Your task to perform on an android device: Search for hotels in Orlando Image 0: 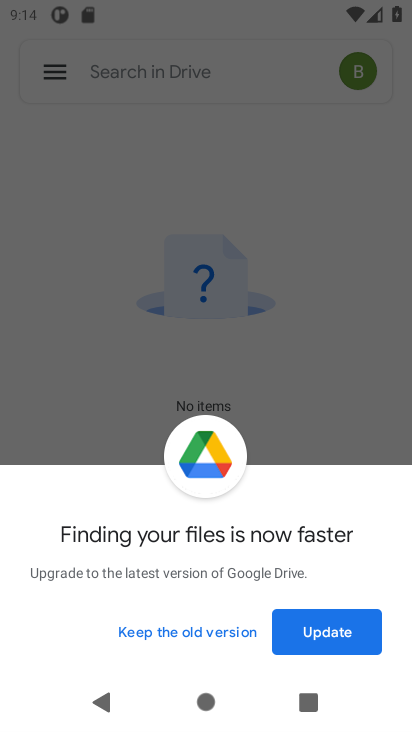
Step 0: press home button
Your task to perform on an android device: Search for hotels in Orlando Image 1: 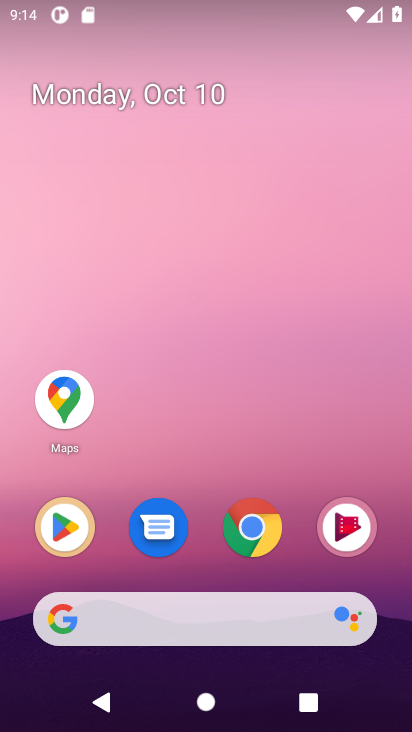
Step 1: click (262, 531)
Your task to perform on an android device: Search for hotels in Orlando Image 2: 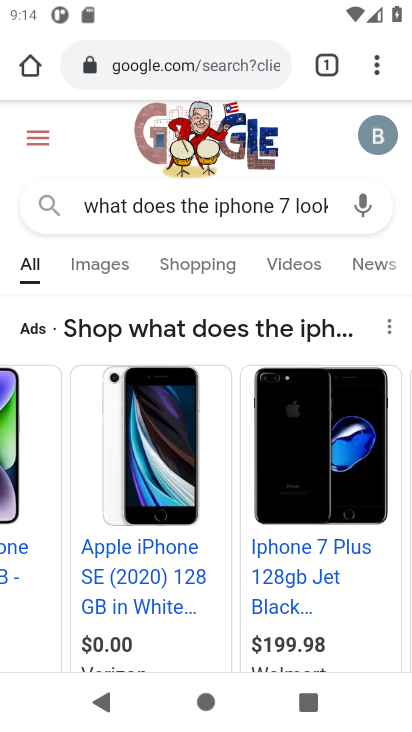
Step 2: click (145, 36)
Your task to perform on an android device: Search for hotels in Orlando Image 3: 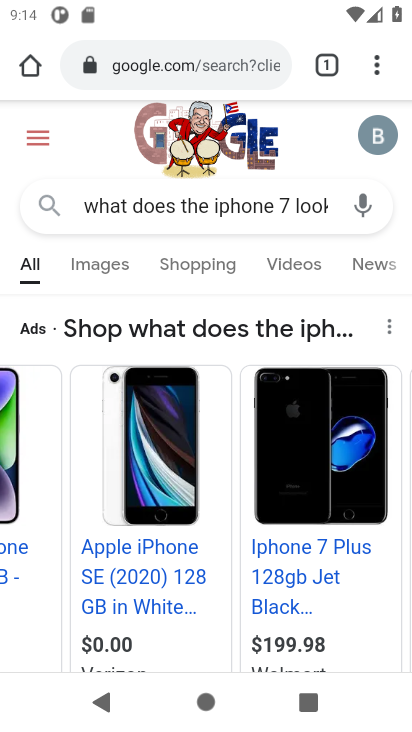
Step 3: click (151, 62)
Your task to perform on an android device: Search for hotels in Orlando Image 4: 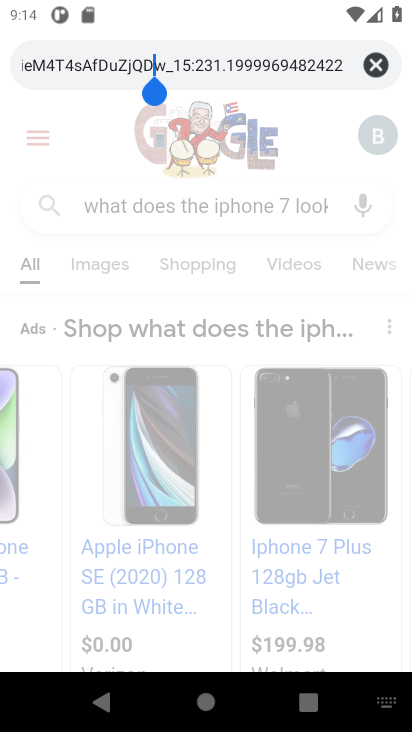
Step 4: click (324, 60)
Your task to perform on an android device: Search for hotels in Orlando Image 5: 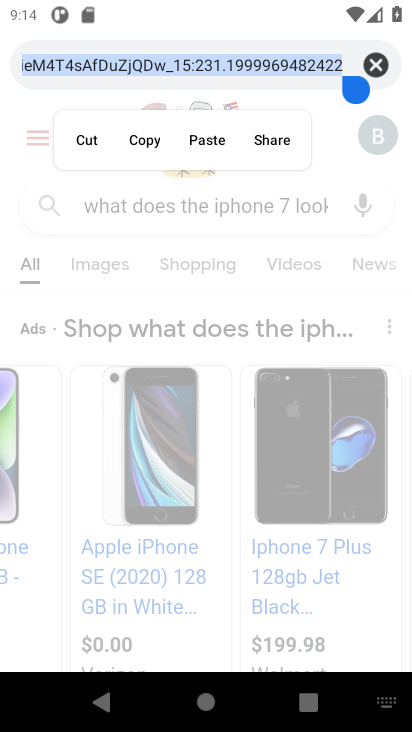
Step 5: type "hotels in Orlando"
Your task to perform on an android device: Search for hotels in Orlando Image 6: 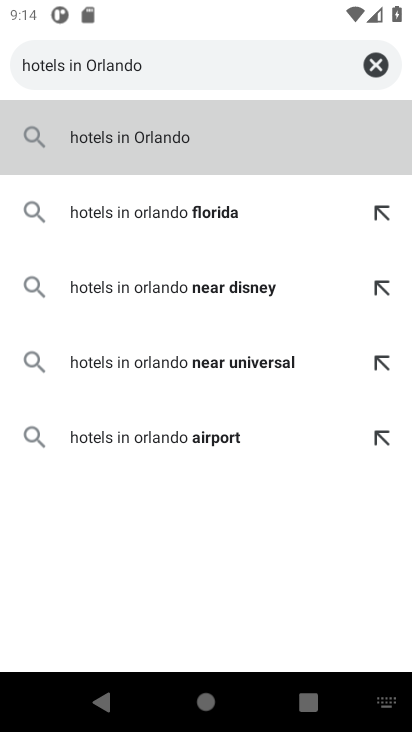
Step 6: type ""
Your task to perform on an android device: Search for hotels in Orlando Image 7: 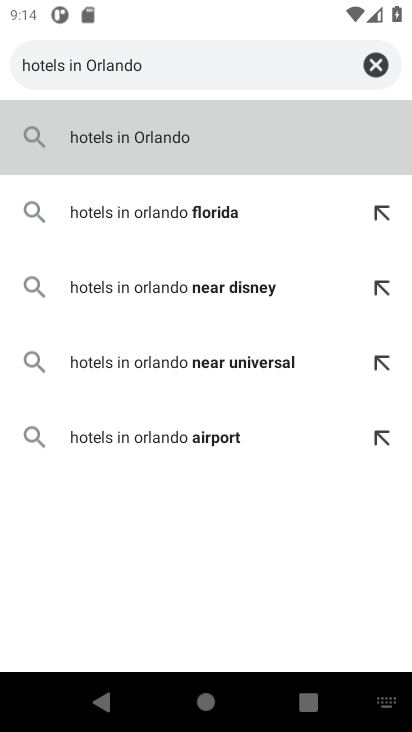
Step 7: click (96, 134)
Your task to perform on an android device: Search for hotels in Orlando Image 8: 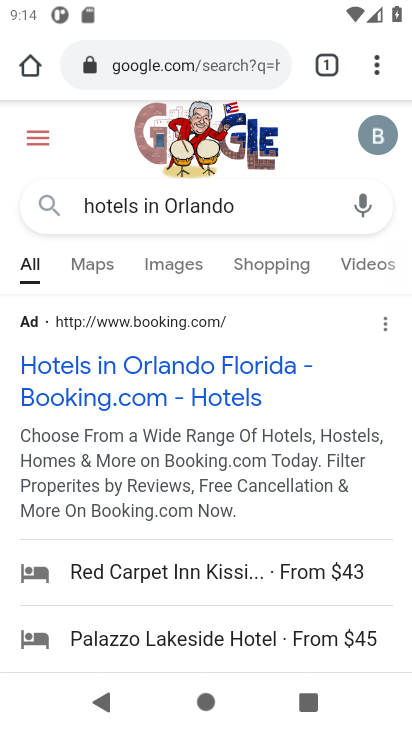
Step 8: click (211, 389)
Your task to perform on an android device: Search for hotels in Orlando Image 9: 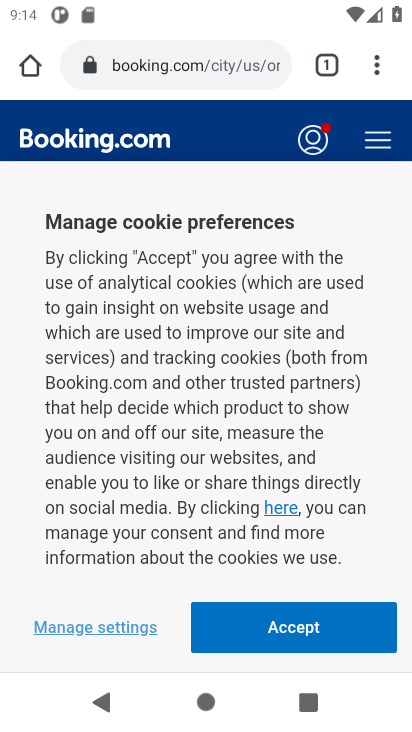
Step 9: click (308, 642)
Your task to perform on an android device: Search for hotels in Orlando Image 10: 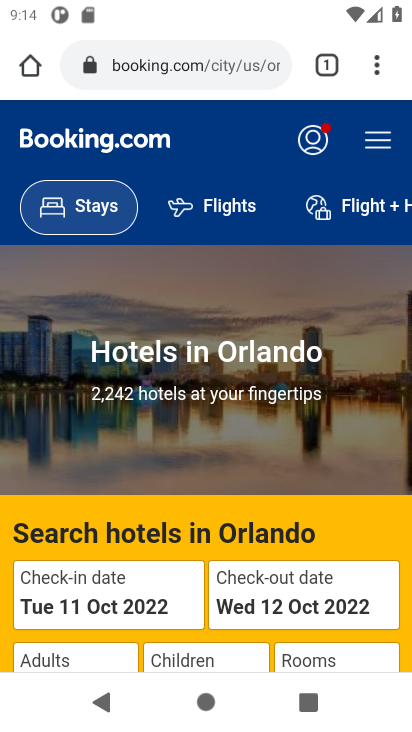
Step 10: drag from (310, 643) to (351, 140)
Your task to perform on an android device: Search for hotels in Orlando Image 11: 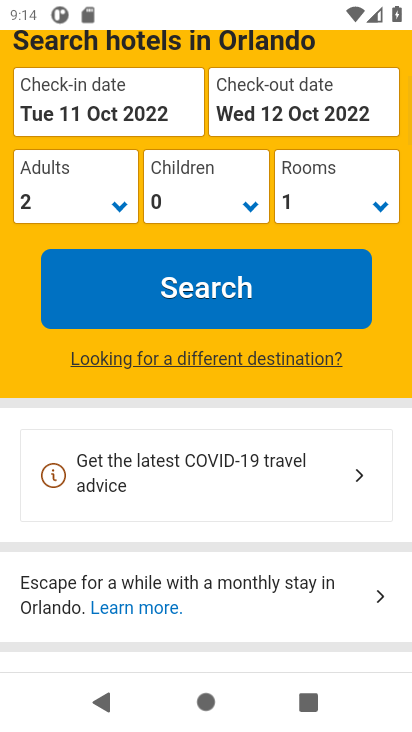
Step 11: drag from (355, 556) to (352, 160)
Your task to perform on an android device: Search for hotels in Orlando Image 12: 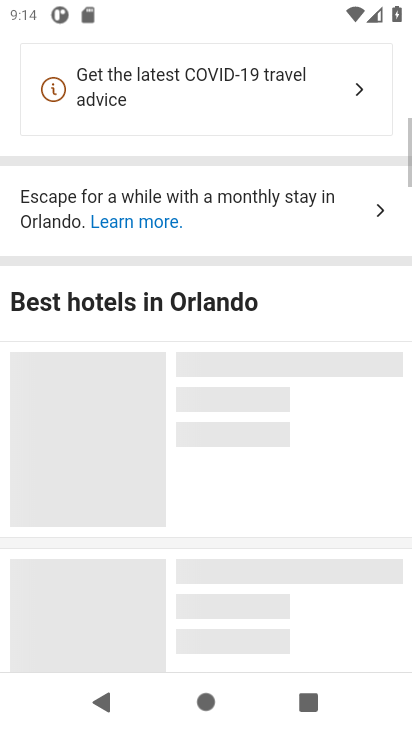
Step 12: drag from (322, 461) to (328, 123)
Your task to perform on an android device: Search for hotels in Orlando Image 13: 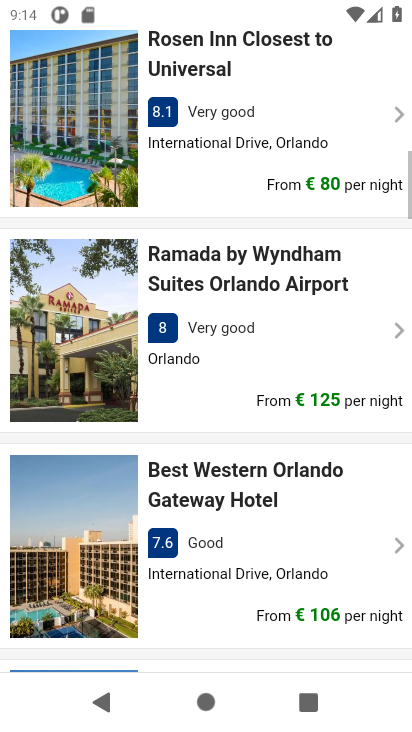
Step 13: drag from (330, 420) to (329, 85)
Your task to perform on an android device: Search for hotels in Orlando Image 14: 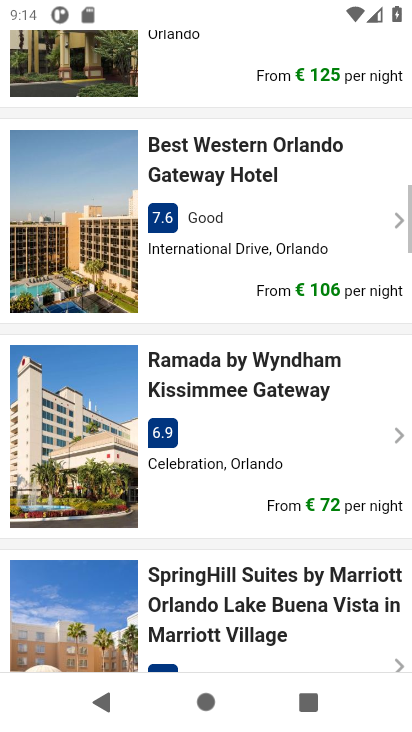
Step 14: drag from (355, 563) to (377, 112)
Your task to perform on an android device: Search for hotels in Orlando Image 15: 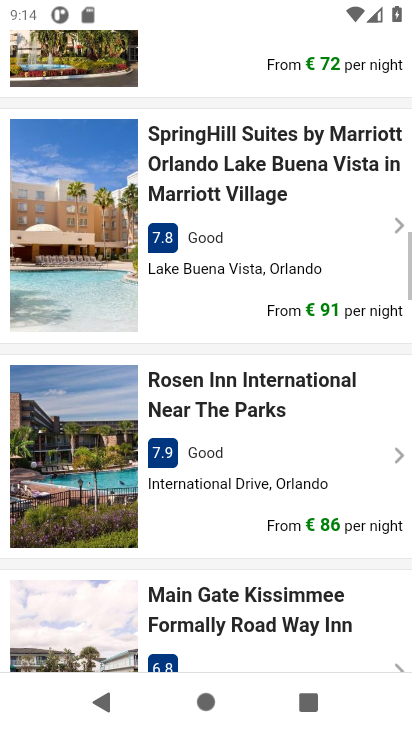
Step 15: drag from (353, 433) to (360, 49)
Your task to perform on an android device: Search for hotels in Orlando Image 16: 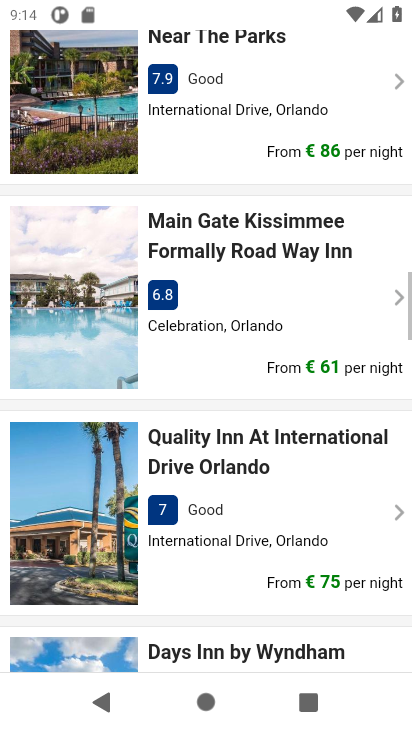
Step 16: drag from (376, 497) to (382, 86)
Your task to perform on an android device: Search for hotels in Orlando Image 17: 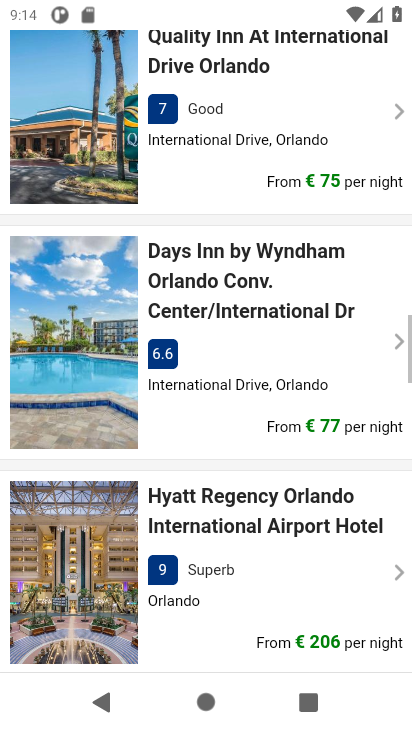
Step 17: drag from (315, 508) to (312, 89)
Your task to perform on an android device: Search for hotels in Orlando Image 18: 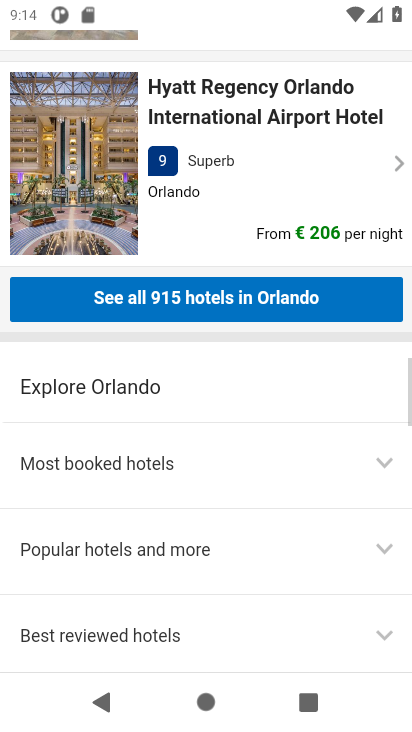
Step 18: drag from (319, 507) to (284, 685)
Your task to perform on an android device: Search for hotels in Orlando Image 19: 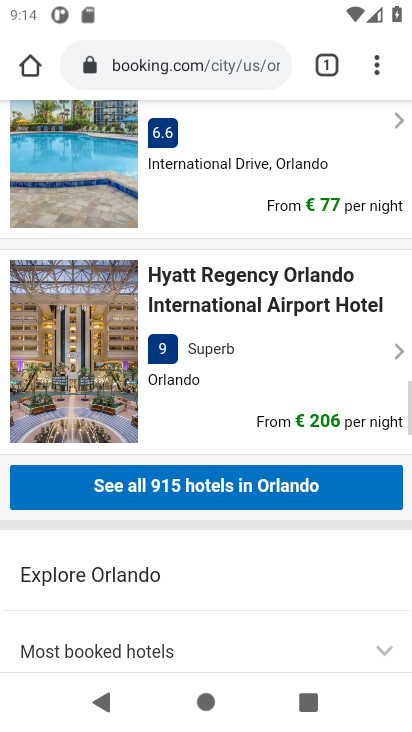
Step 19: drag from (215, 278) to (210, 617)
Your task to perform on an android device: Search for hotels in Orlando Image 20: 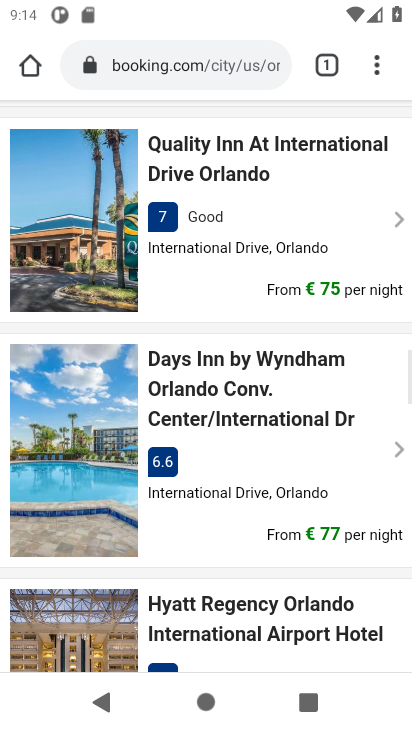
Step 20: drag from (238, 305) to (217, 631)
Your task to perform on an android device: Search for hotels in Orlando Image 21: 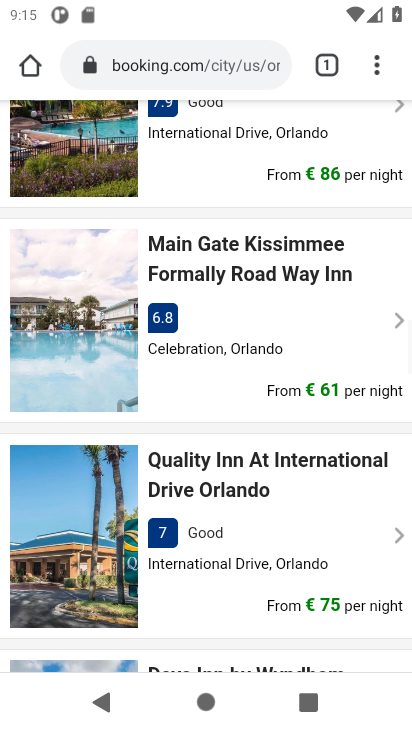
Step 21: drag from (252, 235) to (257, 655)
Your task to perform on an android device: Search for hotels in Orlando Image 22: 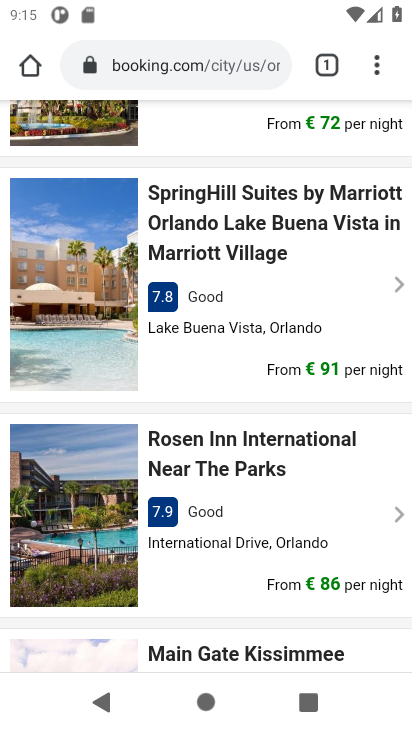
Step 22: drag from (295, 89) to (318, 624)
Your task to perform on an android device: Search for hotels in Orlando Image 23: 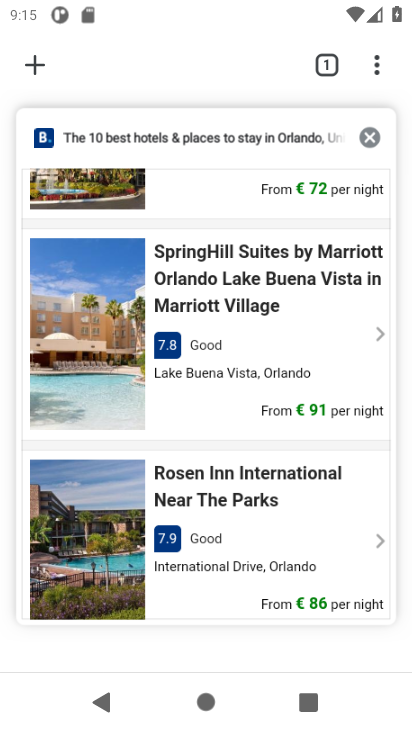
Step 23: click (355, 357)
Your task to perform on an android device: Search for hotels in Orlando Image 24: 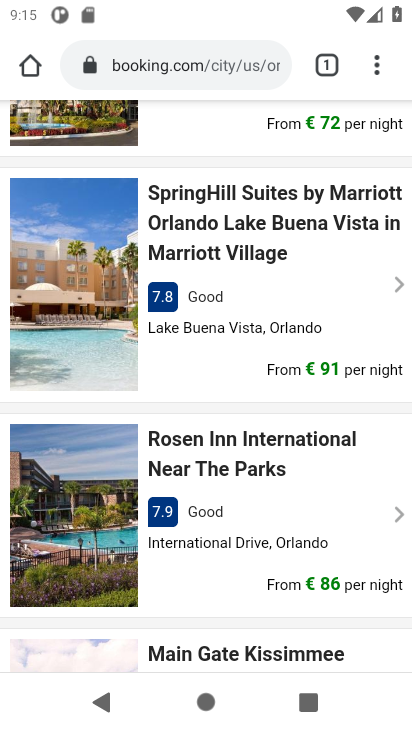
Step 24: drag from (308, 137) to (308, 448)
Your task to perform on an android device: Search for hotels in Orlando Image 25: 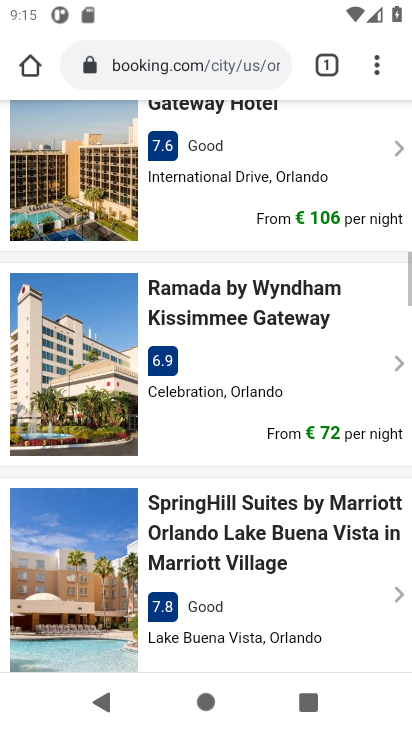
Step 25: click (308, 413)
Your task to perform on an android device: Search for hotels in Orlando Image 26: 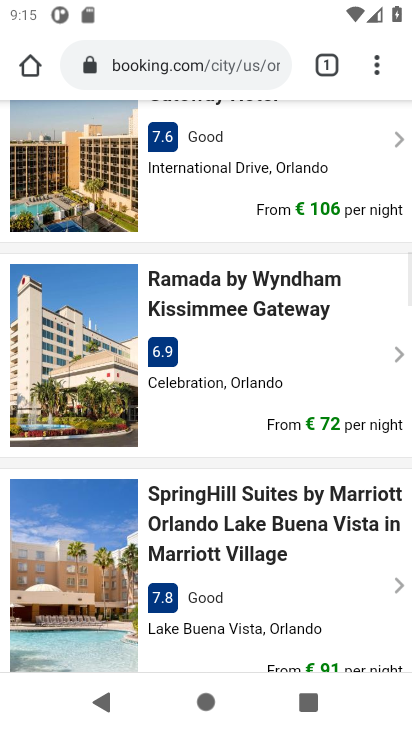
Step 26: click (302, 430)
Your task to perform on an android device: Search for hotels in Orlando Image 27: 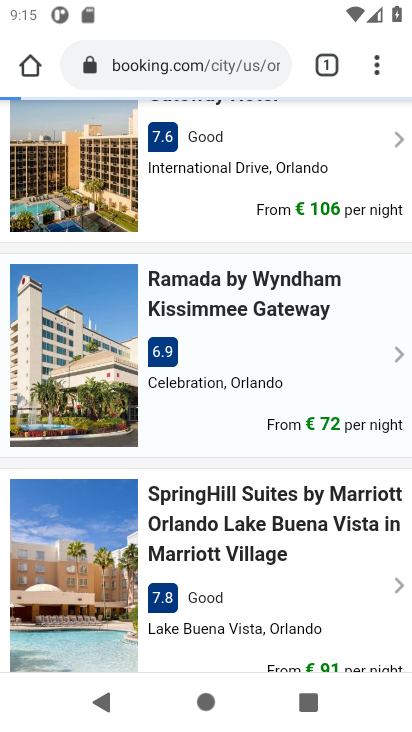
Step 27: drag from (294, 453) to (298, 497)
Your task to perform on an android device: Search for hotels in Orlando Image 28: 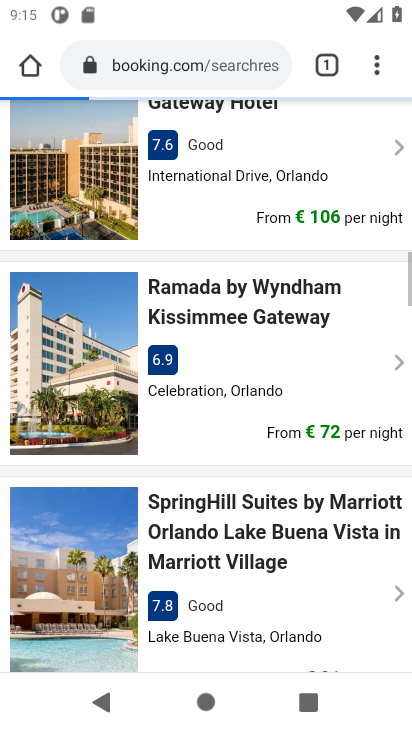
Step 28: drag from (299, 322) to (297, 595)
Your task to perform on an android device: Search for hotels in Orlando Image 29: 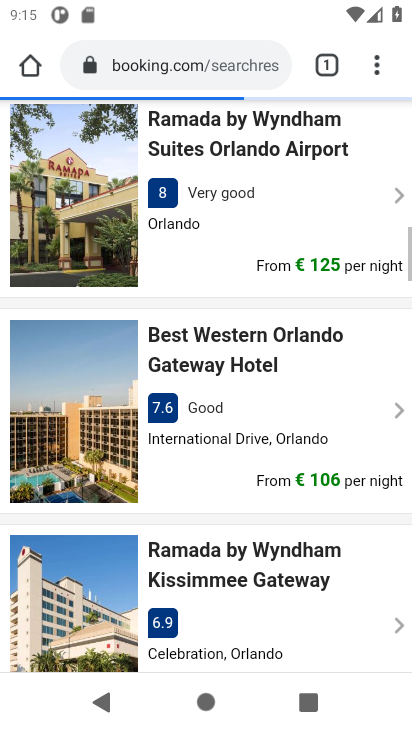
Step 29: drag from (293, 381) to (291, 604)
Your task to perform on an android device: Search for hotels in Orlando Image 30: 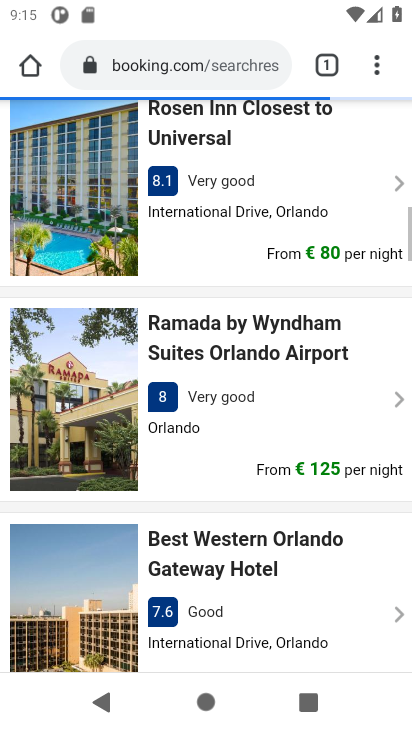
Step 30: drag from (297, 370) to (290, 671)
Your task to perform on an android device: Search for hotels in Orlando Image 31: 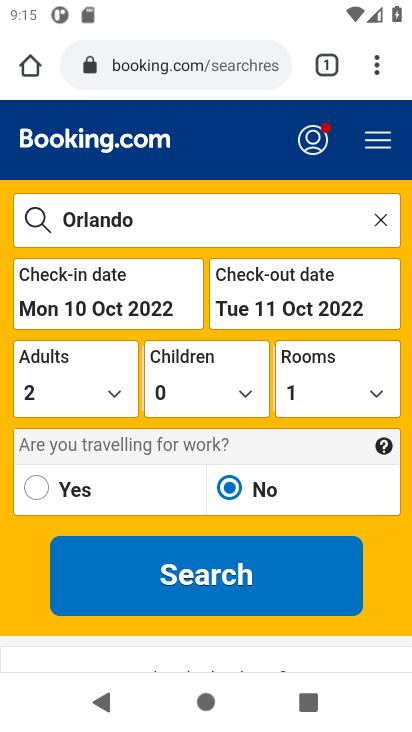
Step 31: drag from (357, 625) to (350, 130)
Your task to perform on an android device: Search for hotels in Orlando Image 32: 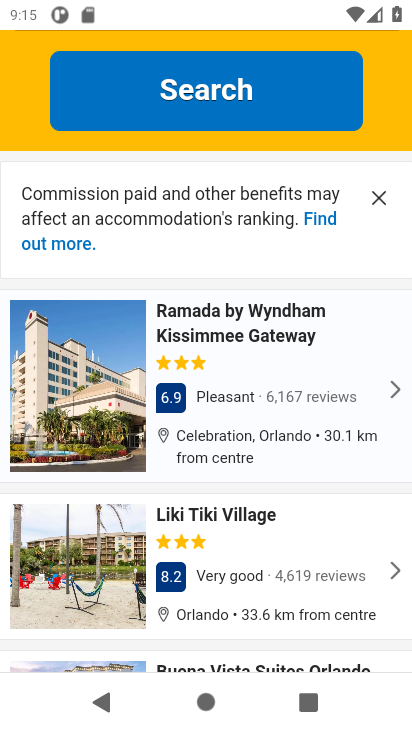
Step 32: drag from (347, 612) to (298, 165)
Your task to perform on an android device: Search for hotels in Orlando Image 33: 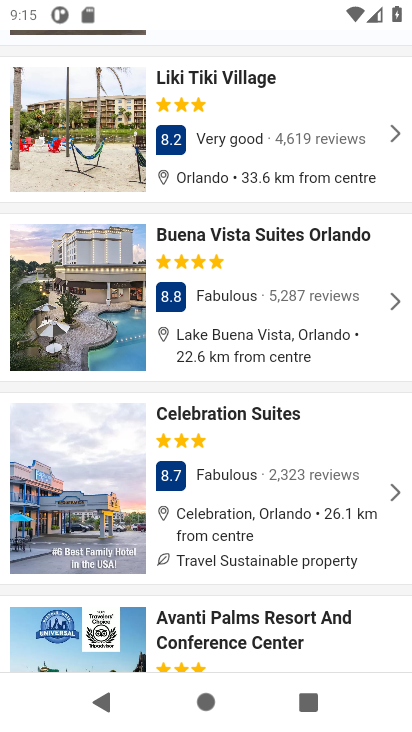
Step 33: drag from (306, 568) to (294, 254)
Your task to perform on an android device: Search for hotels in Orlando Image 34: 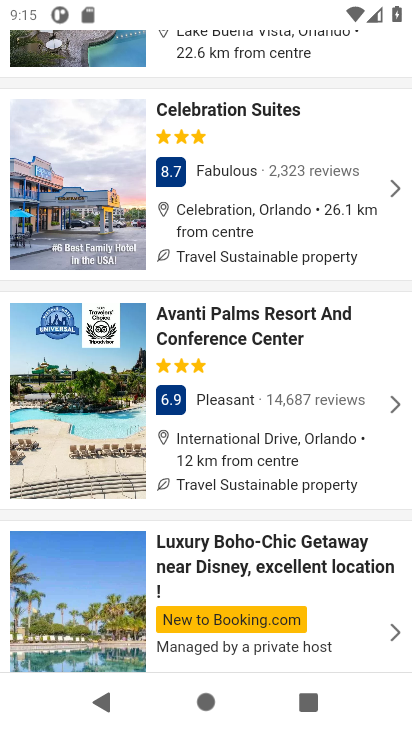
Step 34: click (252, 133)
Your task to perform on an android device: Search for hotels in Orlando Image 35: 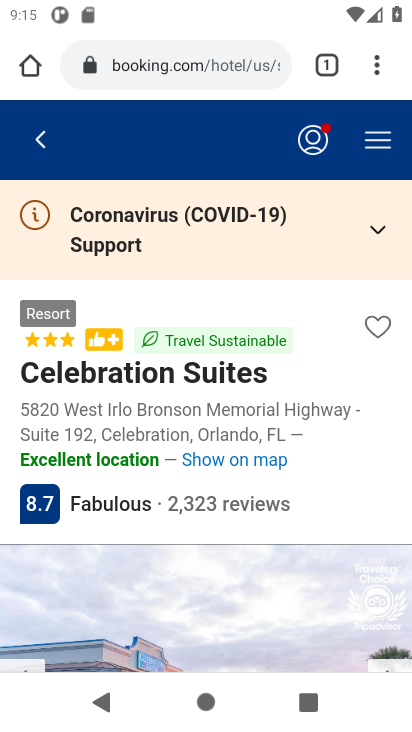
Step 35: drag from (258, 517) to (269, 233)
Your task to perform on an android device: Search for hotels in Orlando Image 36: 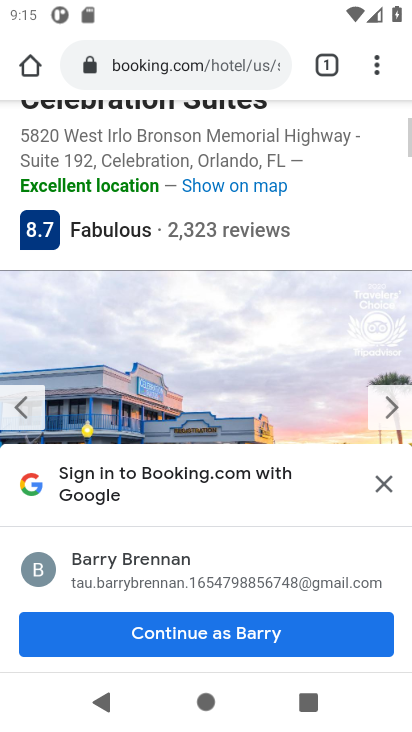
Step 36: click (392, 478)
Your task to perform on an android device: Search for hotels in Orlando Image 37: 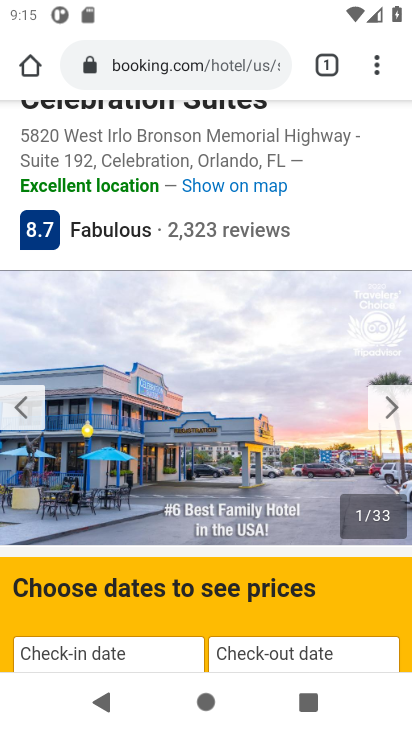
Step 37: drag from (280, 580) to (303, 272)
Your task to perform on an android device: Search for hotels in Orlando Image 38: 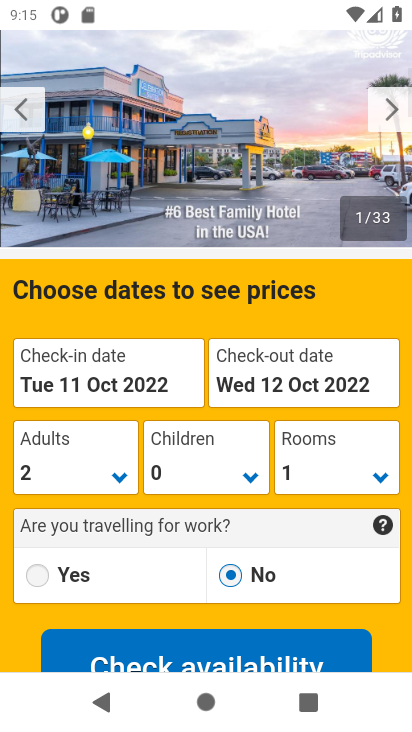
Step 38: drag from (276, 421) to (286, 255)
Your task to perform on an android device: Search for hotels in Orlando Image 39: 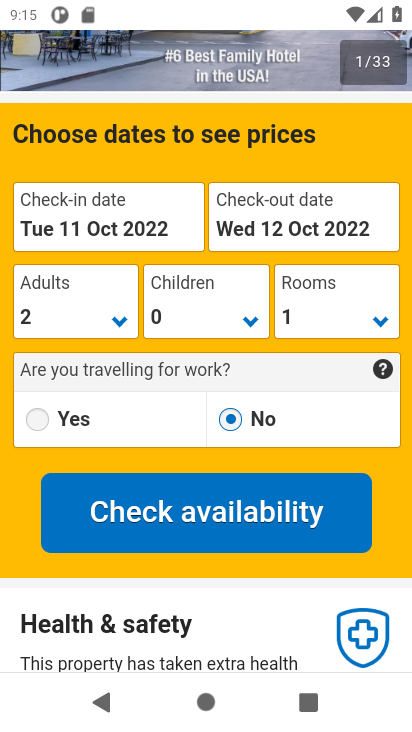
Step 39: drag from (284, 613) to (318, 258)
Your task to perform on an android device: Search for hotels in Orlando Image 40: 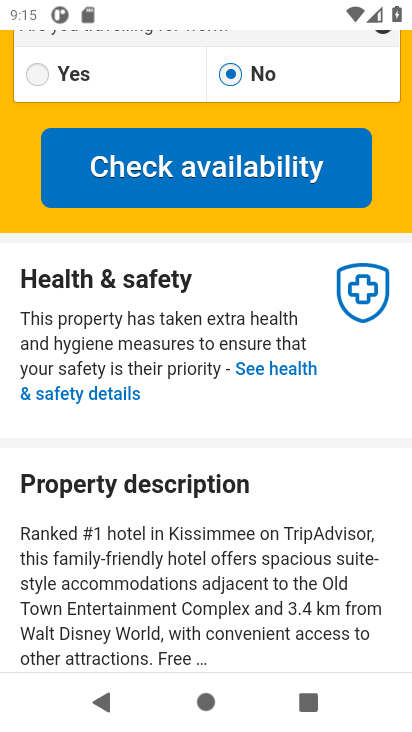
Step 40: drag from (278, 571) to (292, 228)
Your task to perform on an android device: Search for hotels in Orlando Image 41: 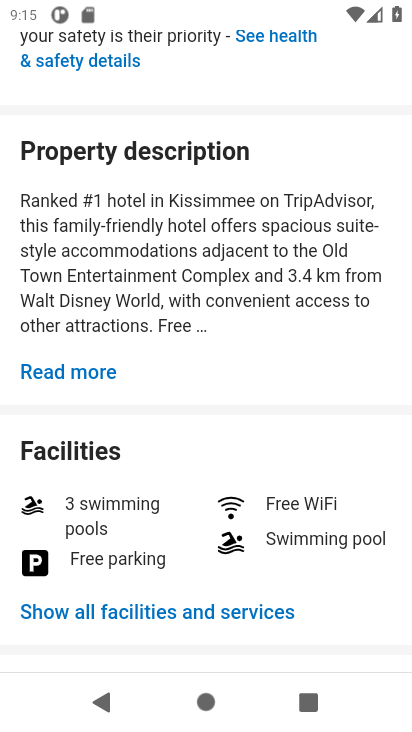
Step 41: drag from (306, 510) to (298, 198)
Your task to perform on an android device: Search for hotels in Orlando Image 42: 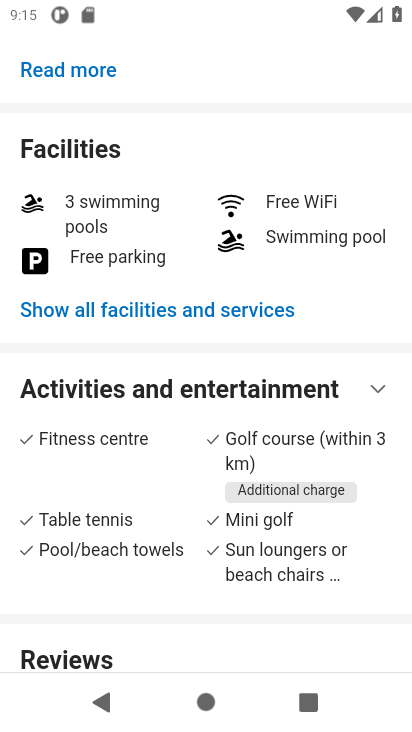
Step 42: drag from (316, 581) to (323, 258)
Your task to perform on an android device: Search for hotels in Orlando Image 43: 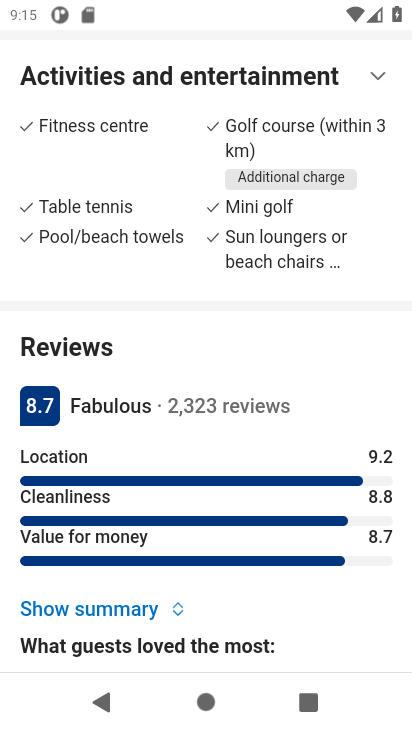
Step 43: drag from (322, 503) to (318, 256)
Your task to perform on an android device: Search for hotels in Orlando Image 44: 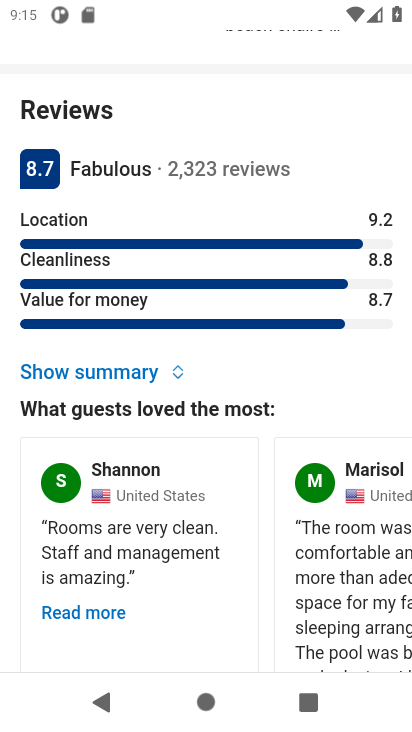
Step 44: drag from (348, 581) to (346, 135)
Your task to perform on an android device: Search for hotels in Orlando Image 45: 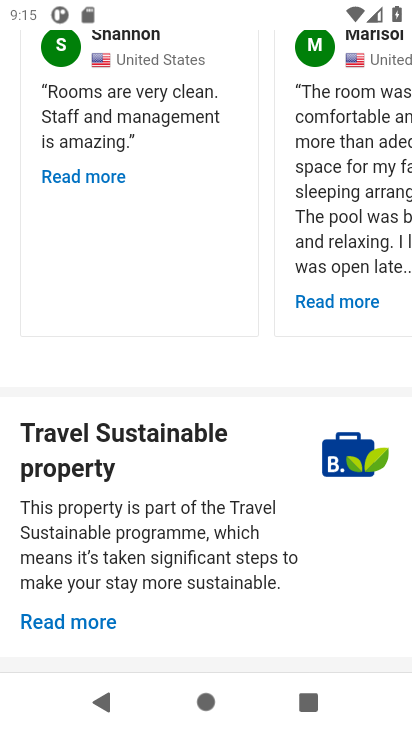
Step 45: drag from (321, 560) to (308, 135)
Your task to perform on an android device: Search for hotels in Orlando Image 46: 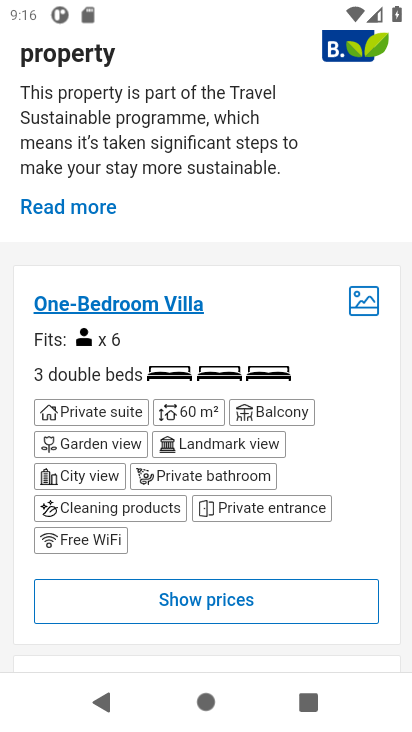
Step 46: drag from (295, 577) to (300, 211)
Your task to perform on an android device: Search for hotels in Orlando Image 47: 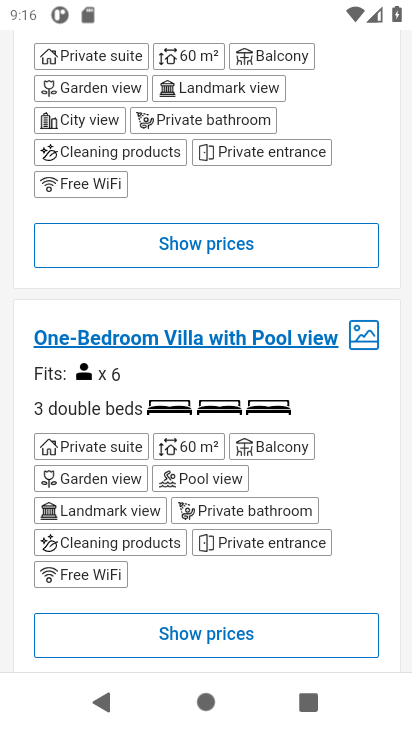
Step 47: click (270, 248)
Your task to perform on an android device: Search for hotels in Orlando Image 48: 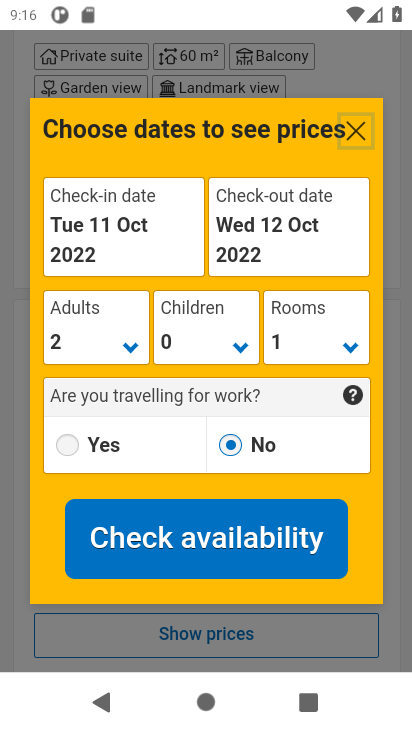
Step 48: click (258, 511)
Your task to perform on an android device: Search for hotels in Orlando Image 49: 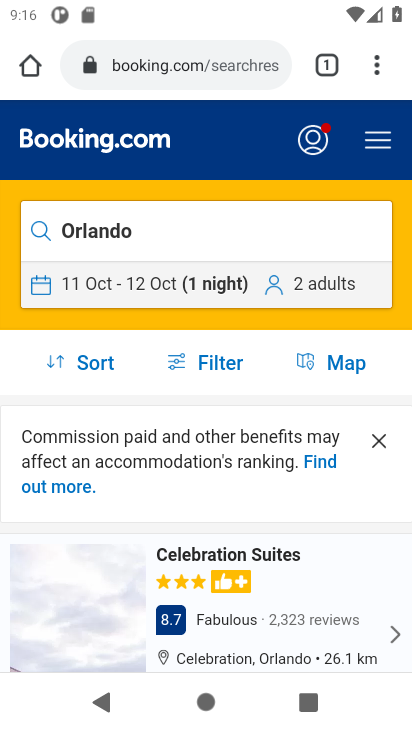
Step 49: click (377, 438)
Your task to perform on an android device: Search for hotels in Orlando Image 50: 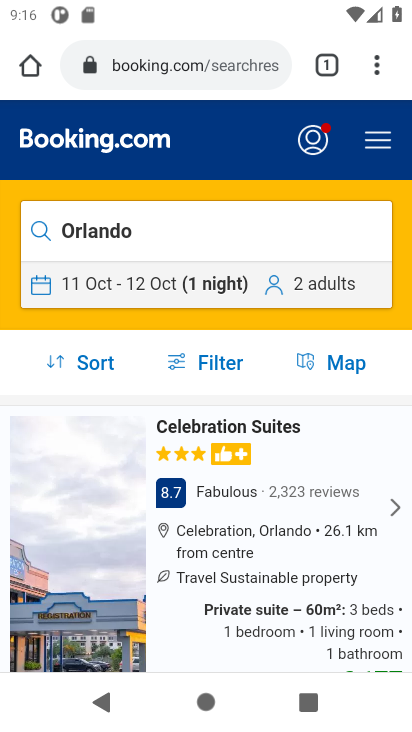
Step 50: click (284, 442)
Your task to perform on an android device: Search for hotels in Orlando Image 51: 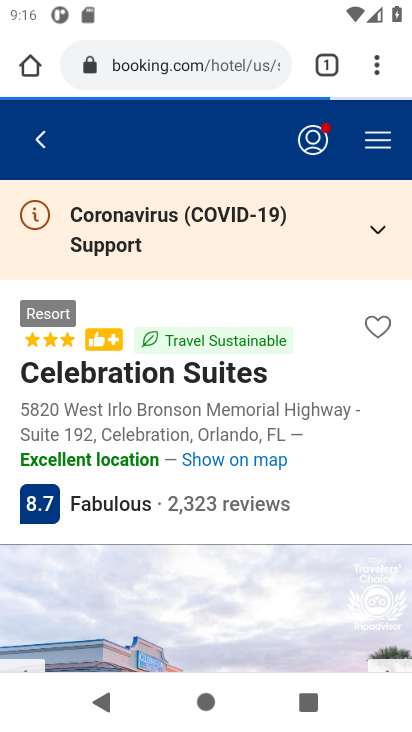
Step 51: drag from (291, 505) to (297, 293)
Your task to perform on an android device: Search for hotels in Orlando Image 52: 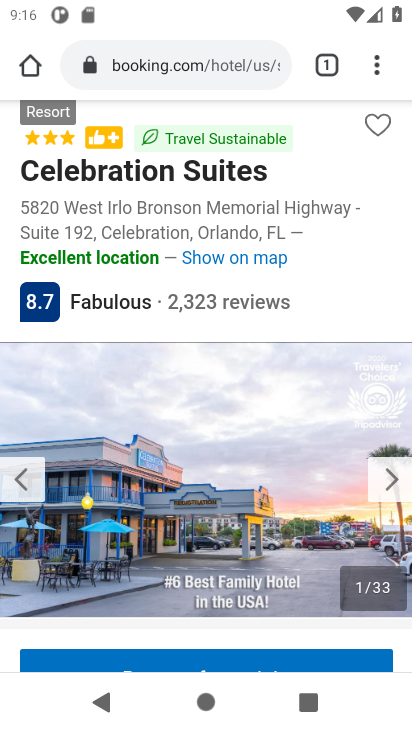
Step 52: drag from (310, 569) to (310, 457)
Your task to perform on an android device: Search for hotels in Orlando Image 53: 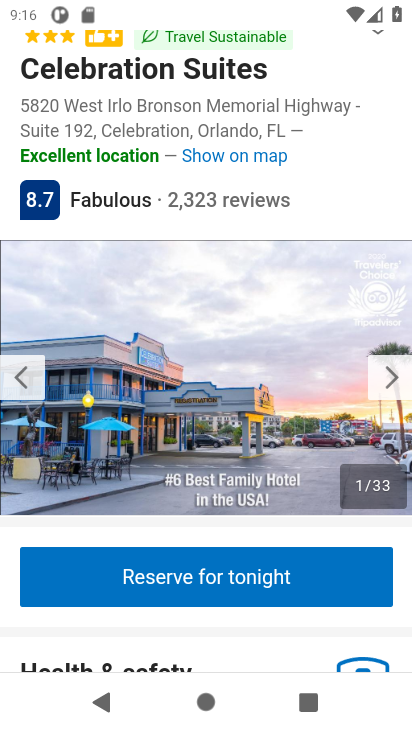
Step 53: click (378, 391)
Your task to perform on an android device: Search for hotels in Orlando Image 54: 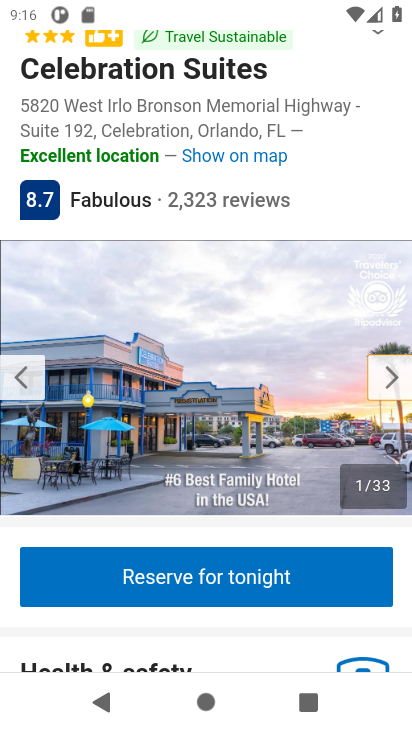
Step 54: click (378, 391)
Your task to perform on an android device: Search for hotels in Orlando Image 55: 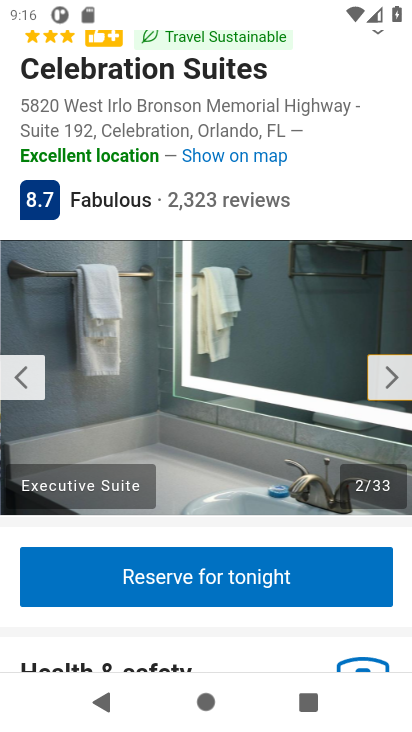
Step 55: click (378, 391)
Your task to perform on an android device: Search for hotels in Orlando Image 56: 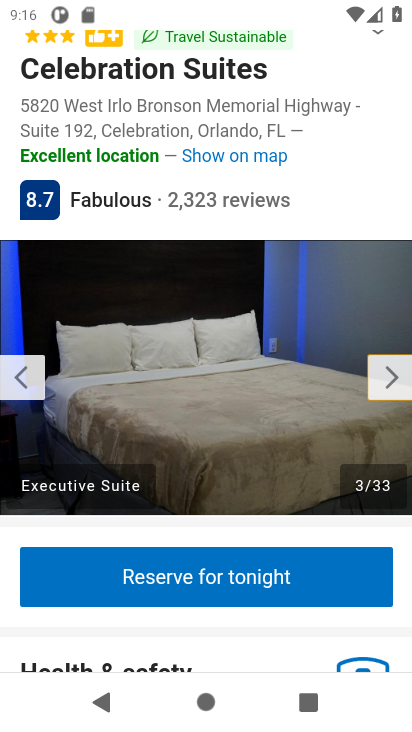
Step 56: click (390, 375)
Your task to perform on an android device: Search for hotels in Orlando Image 57: 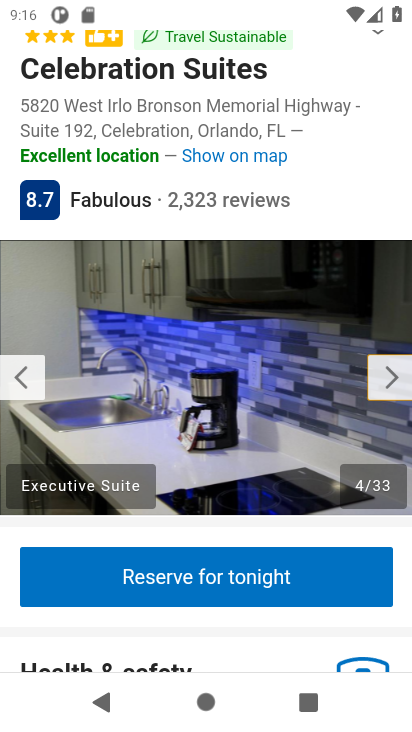
Step 57: click (390, 375)
Your task to perform on an android device: Search for hotels in Orlando Image 58: 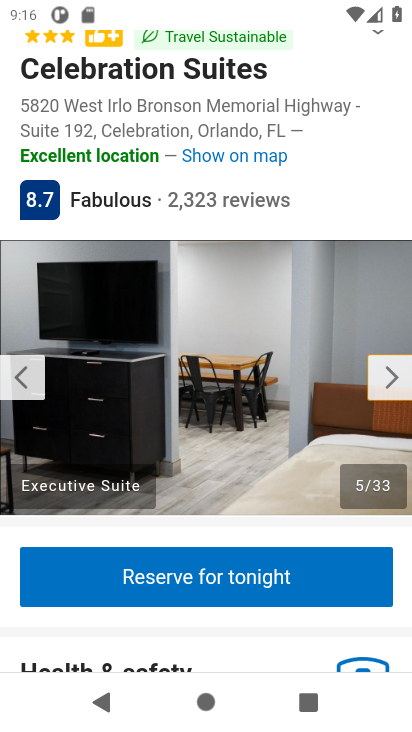
Step 58: click (390, 375)
Your task to perform on an android device: Search for hotels in Orlando Image 59: 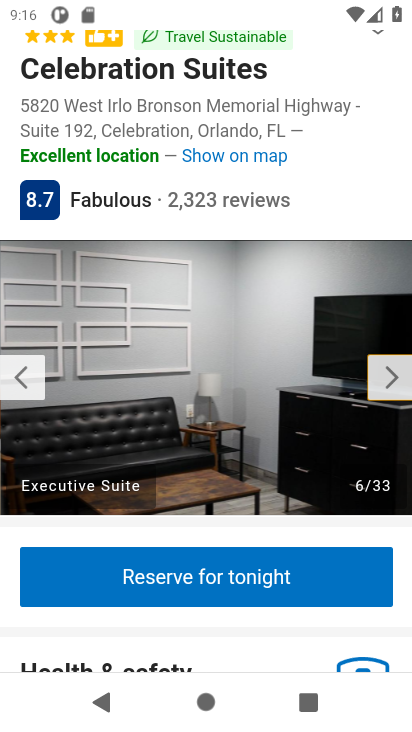
Step 59: drag from (340, 581) to (332, 272)
Your task to perform on an android device: Search for hotels in Orlando Image 60: 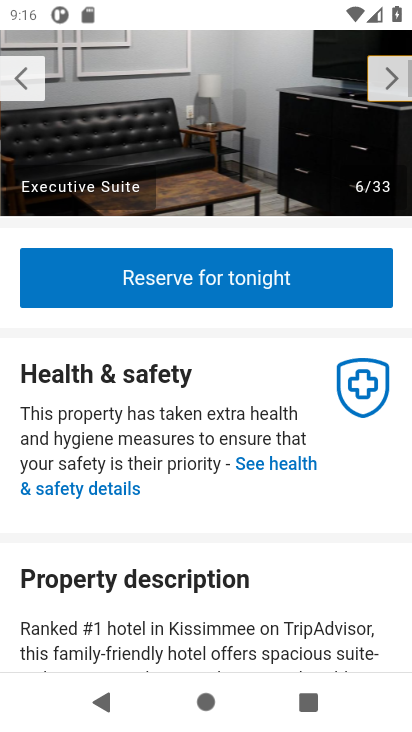
Step 60: drag from (329, 519) to (343, 294)
Your task to perform on an android device: Search for hotels in Orlando Image 61: 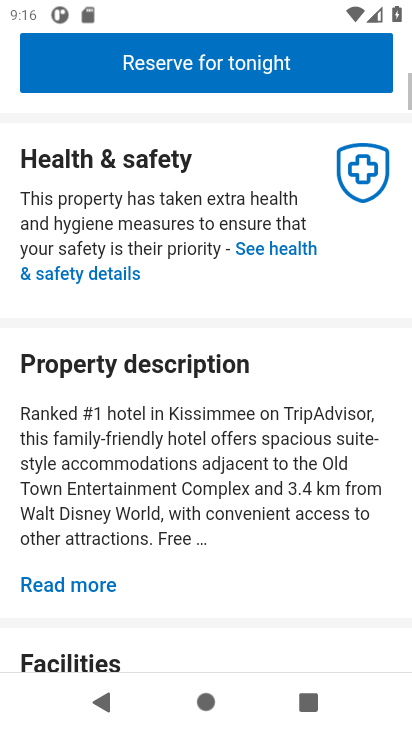
Step 61: drag from (344, 440) to (344, 276)
Your task to perform on an android device: Search for hotels in Orlando Image 62: 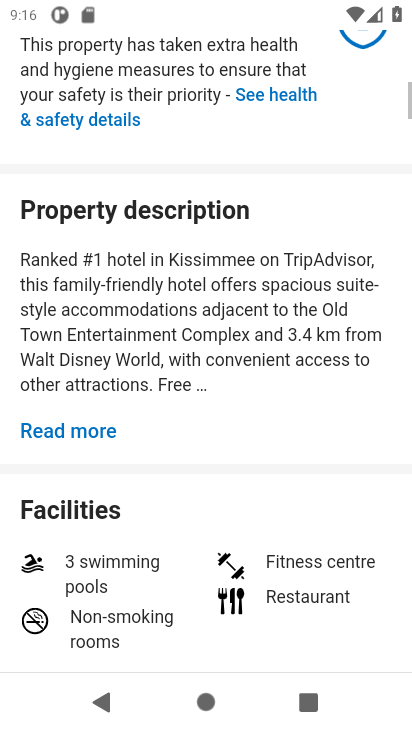
Step 62: click (350, 321)
Your task to perform on an android device: Search for hotels in Orlando Image 63: 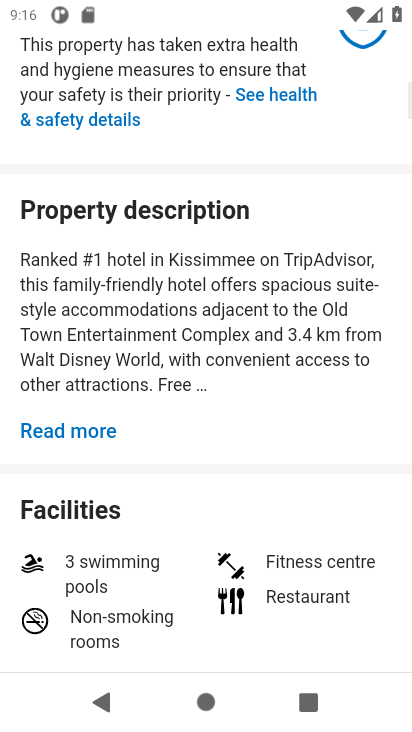
Step 63: drag from (346, 387) to (346, 335)
Your task to perform on an android device: Search for hotels in Orlando Image 64: 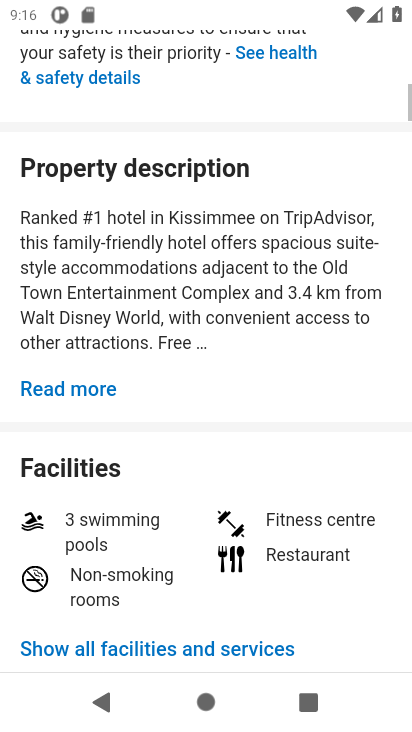
Step 64: drag from (343, 432) to (346, 327)
Your task to perform on an android device: Search for hotels in Orlando Image 65: 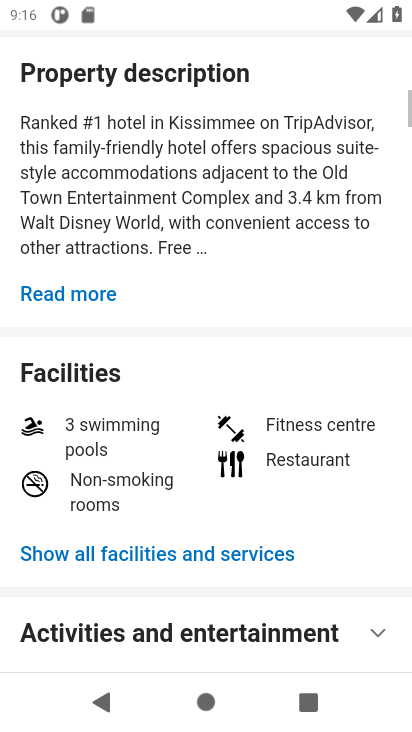
Step 65: drag from (361, 224) to (361, 135)
Your task to perform on an android device: Search for hotels in Orlando Image 66: 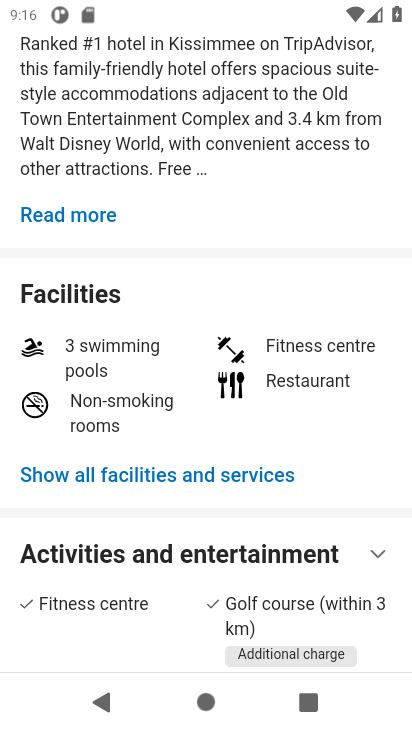
Step 66: press back button
Your task to perform on an android device: Search for hotels in Orlando Image 67: 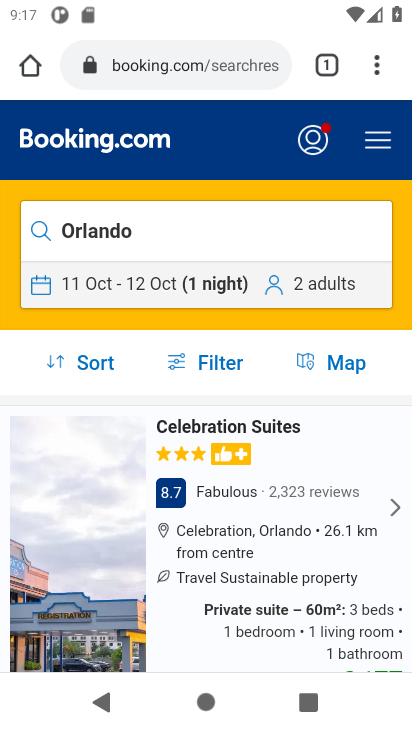
Step 67: drag from (137, 532) to (161, 215)
Your task to perform on an android device: Search for hotels in Orlando Image 68: 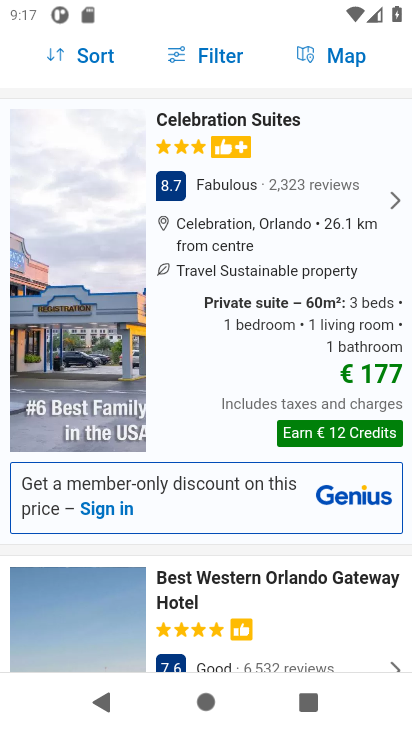
Step 68: drag from (210, 404) to (221, 290)
Your task to perform on an android device: Search for hotels in Orlando Image 69: 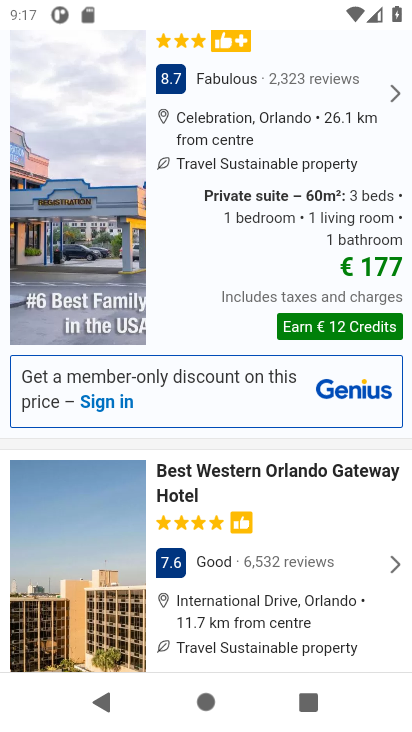
Step 69: drag from (261, 613) to (258, 339)
Your task to perform on an android device: Search for hotels in Orlando Image 70: 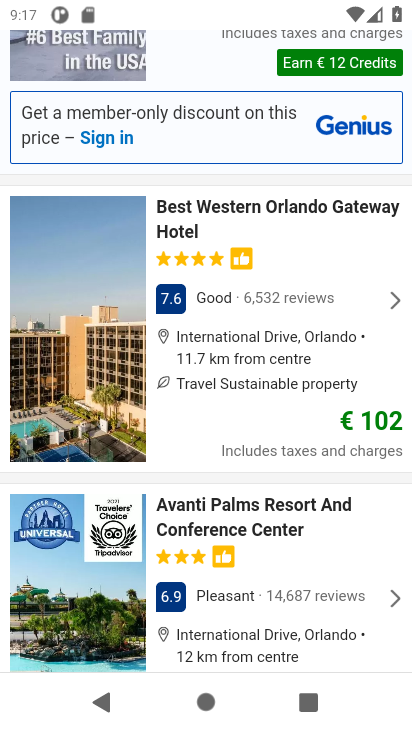
Step 70: click (307, 509)
Your task to perform on an android device: Search for hotels in Orlando Image 71: 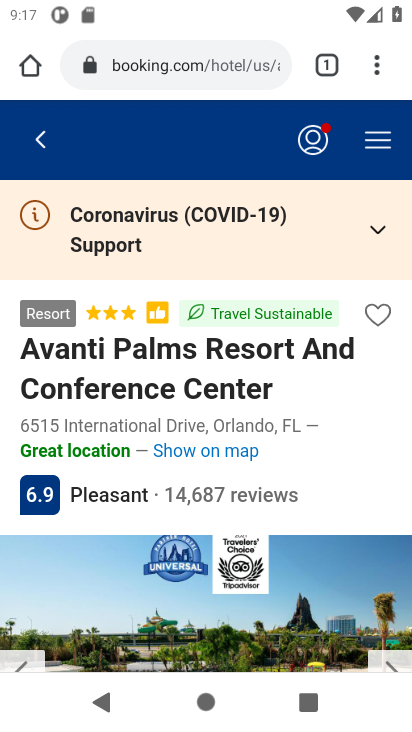
Step 71: drag from (337, 606) to (258, 266)
Your task to perform on an android device: Search for hotels in Orlando Image 72: 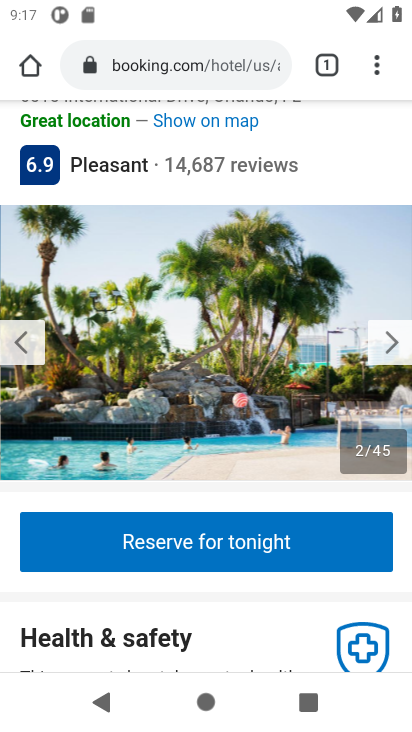
Step 72: drag from (317, 540) to (288, 180)
Your task to perform on an android device: Search for hotels in Orlando Image 73: 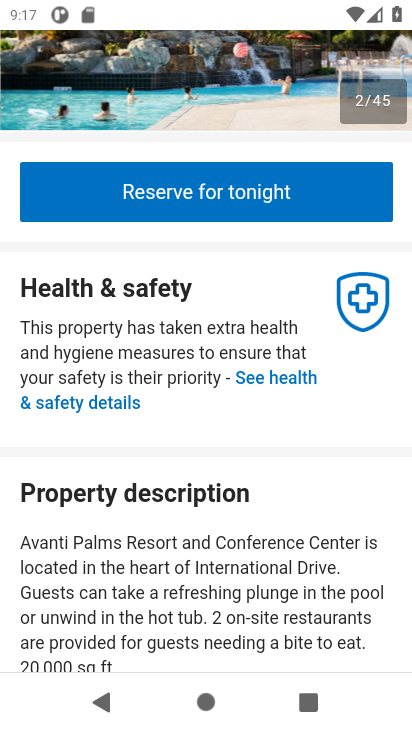
Step 73: drag from (308, 609) to (281, 246)
Your task to perform on an android device: Search for hotels in Orlando Image 74: 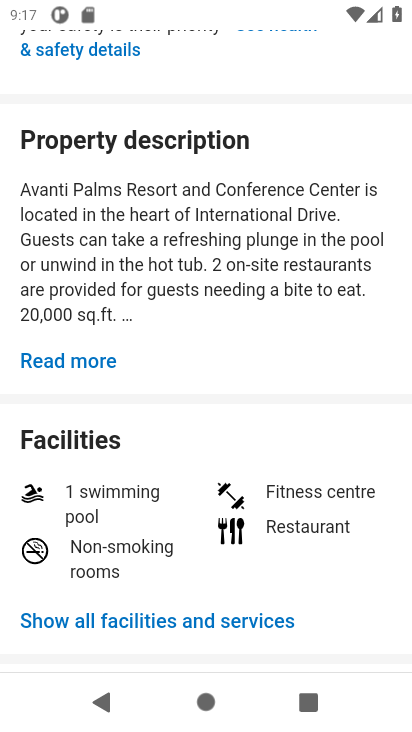
Step 74: drag from (282, 615) to (264, 237)
Your task to perform on an android device: Search for hotels in Orlando Image 75: 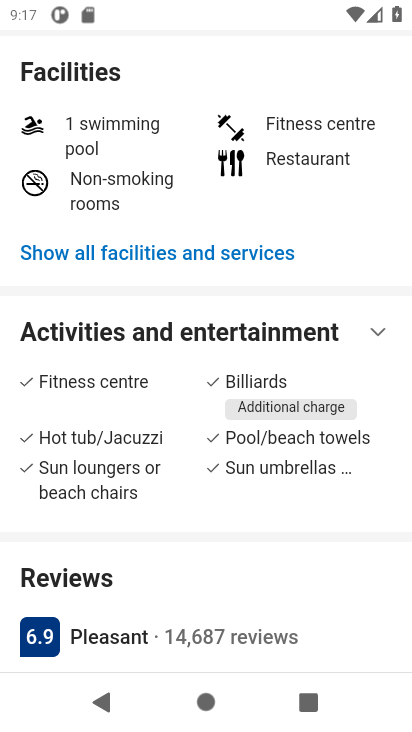
Step 75: drag from (134, 687) to (226, 17)
Your task to perform on an android device: Search for hotels in Orlando Image 76: 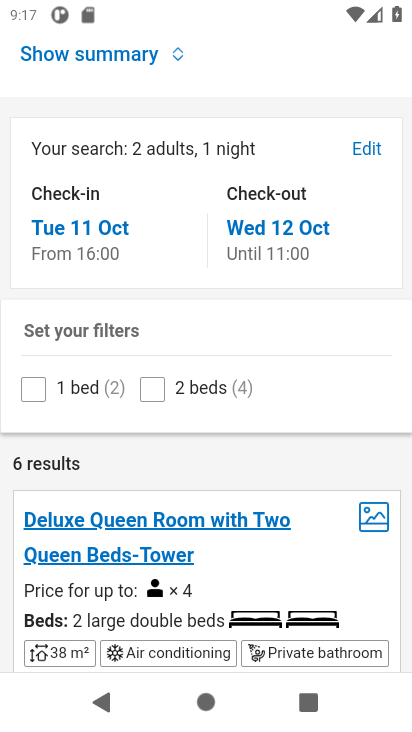
Step 76: drag from (297, 406) to (312, 139)
Your task to perform on an android device: Search for hotels in Orlando Image 77: 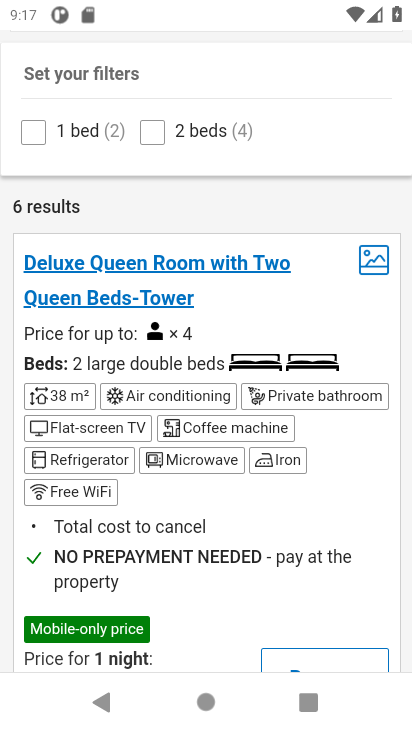
Step 77: drag from (270, 575) to (233, 58)
Your task to perform on an android device: Search for hotels in Orlando Image 78: 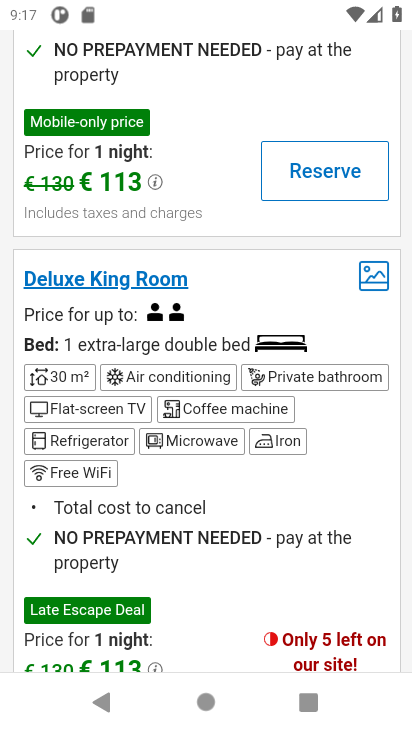
Step 78: press back button
Your task to perform on an android device: Search for hotels in Orlando Image 79: 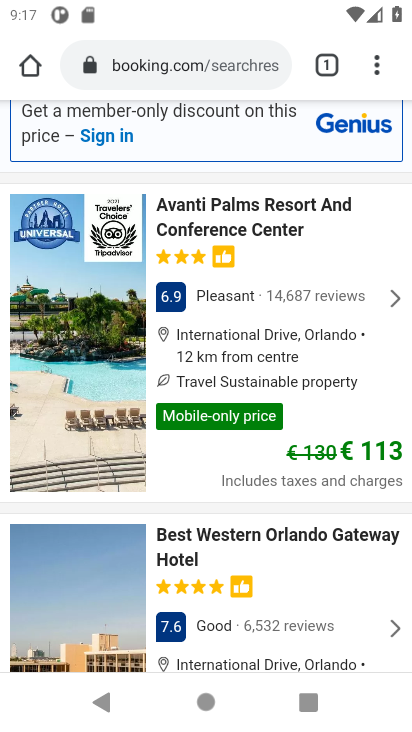
Step 79: drag from (246, 646) to (247, 188)
Your task to perform on an android device: Search for hotels in Orlando Image 80: 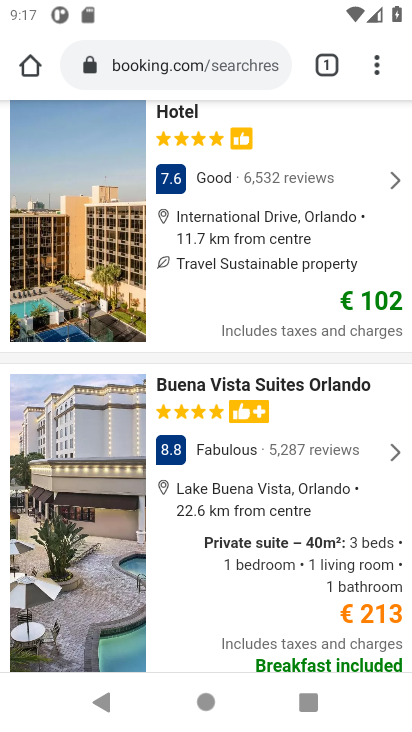
Step 80: click (288, 382)
Your task to perform on an android device: Search for hotels in Orlando Image 81: 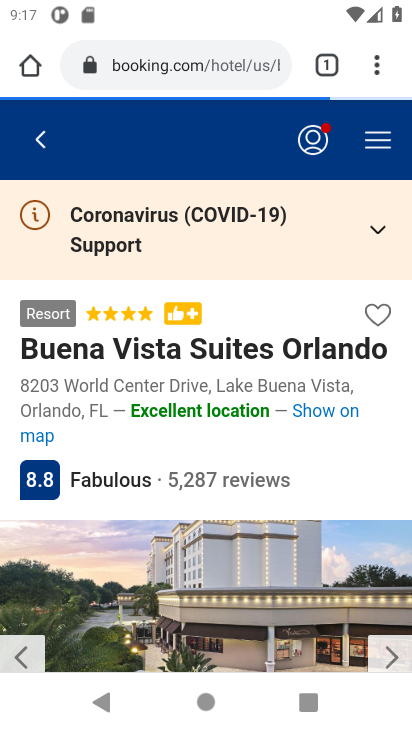
Step 81: task complete